Your task to perform on an android device: Go to calendar. Show me events next week Image 0: 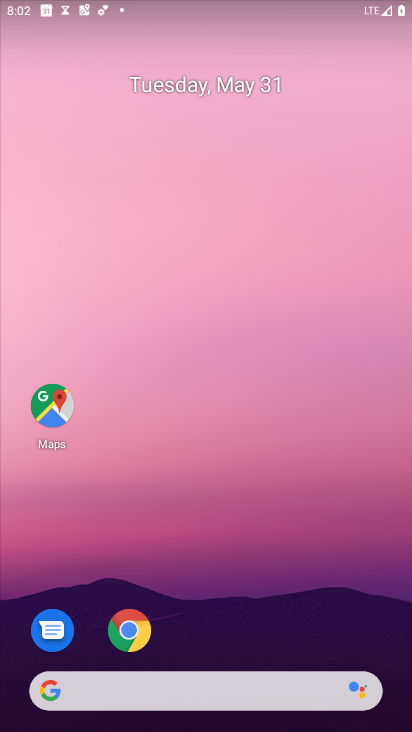
Step 0: drag from (262, 638) to (288, 168)
Your task to perform on an android device: Go to calendar. Show me events next week Image 1: 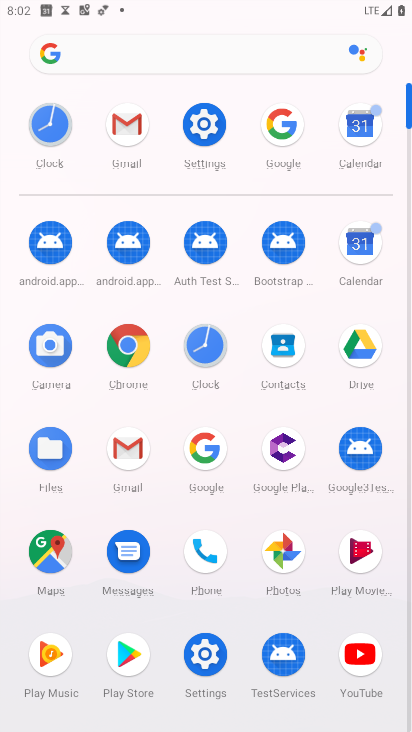
Step 1: click (360, 126)
Your task to perform on an android device: Go to calendar. Show me events next week Image 2: 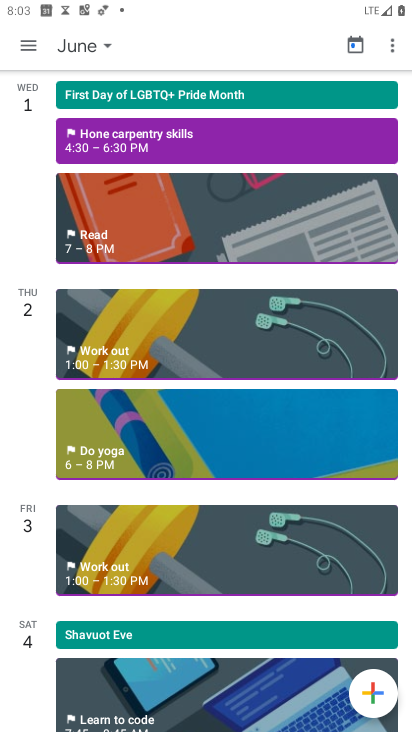
Step 2: click (355, 46)
Your task to perform on an android device: Go to calendar. Show me events next week Image 3: 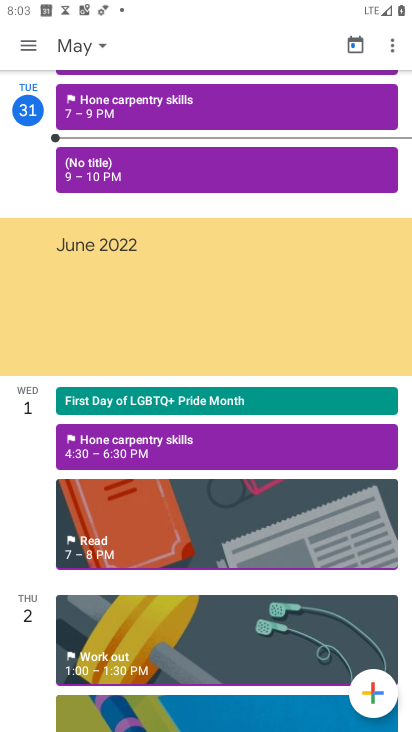
Step 3: click (103, 47)
Your task to perform on an android device: Go to calendar. Show me events next week Image 4: 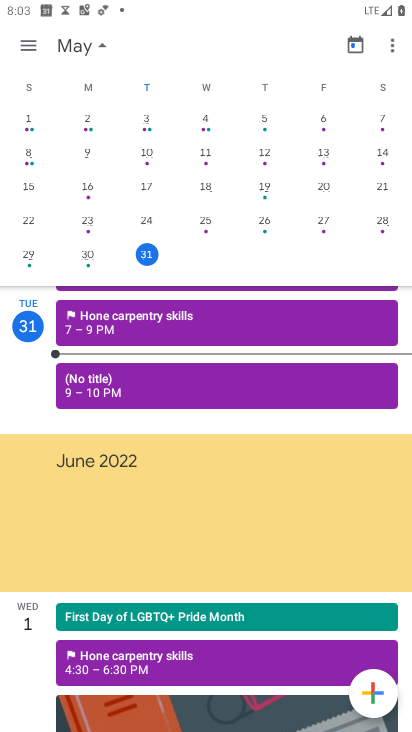
Step 4: drag from (354, 199) to (45, 213)
Your task to perform on an android device: Go to calendar. Show me events next week Image 5: 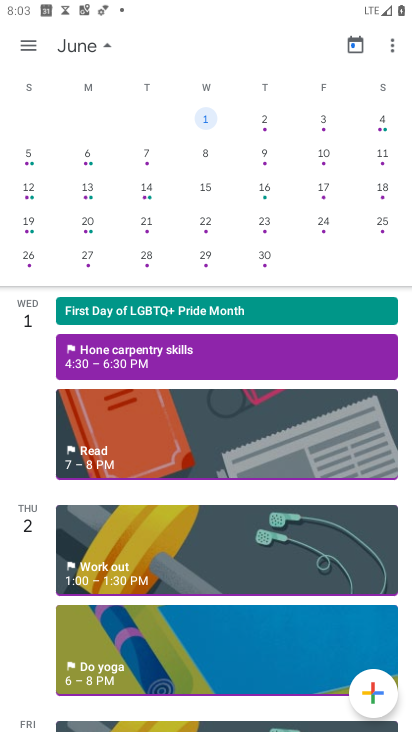
Step 5: click (97, 162)
Your task to perform on an android device: Go to calendar. Show me events next week Image 6: 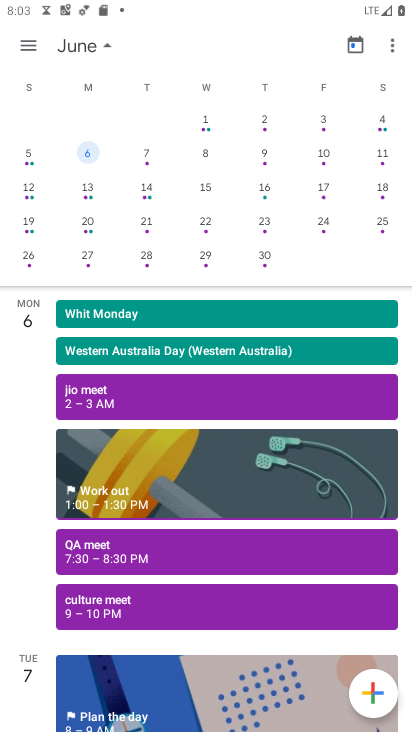
Step 6: click (31, 48)
Your task to perform on an android device: Go to calendar. Show me events next week Image 7: 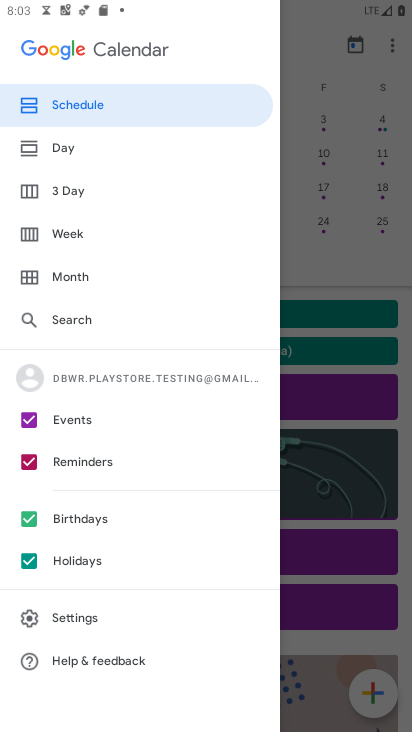
Step 7: click (75, 231)
Your task to perform on an android device: Go to calendar. Show me events next week Image 8: 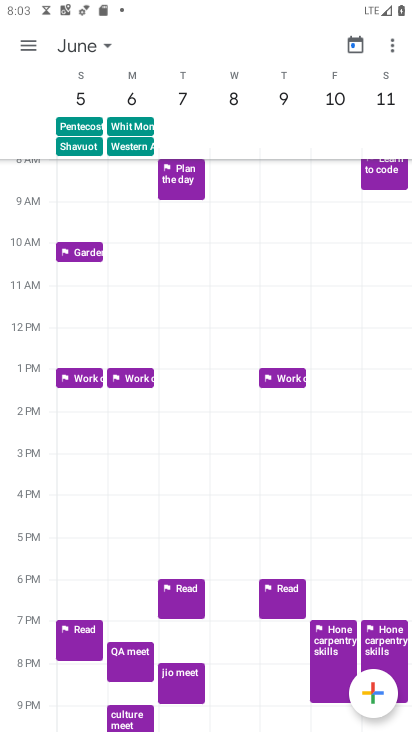
Step 8: task complete